Your task to perform on an android device: make emails show in primary in the gmail app Image 0: 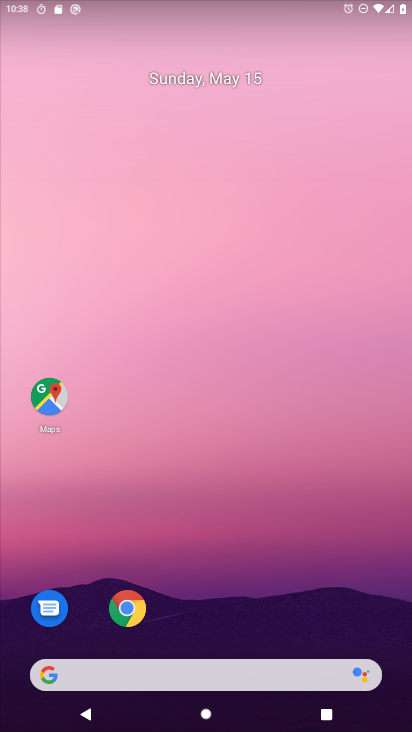
Step 0: drag from (361, 588) to (360, 183)
Your task to perform on an android device: make emails show in primary in the gmail app Image 1: 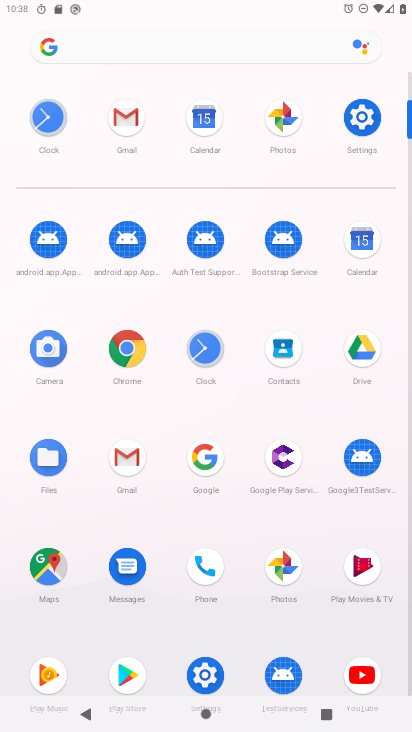
Step 1: click (121, 471)
Your task to perform on an android device: make emails show in primary in the gmail app Image 2: 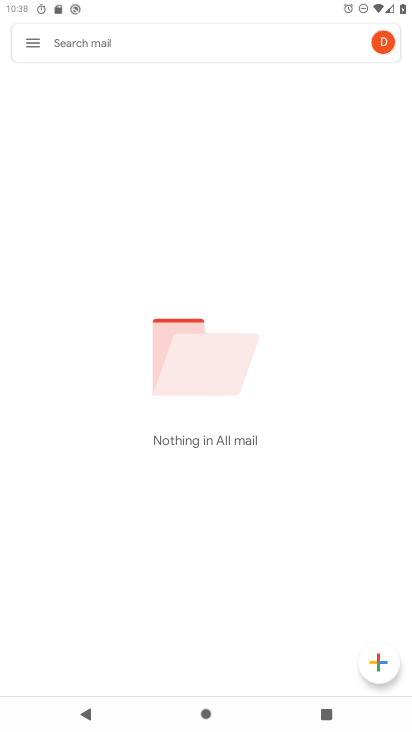
Step 2: click (20, 47)
Your task to perform on an android device: make emails show in primary in the gmail app Image 3: 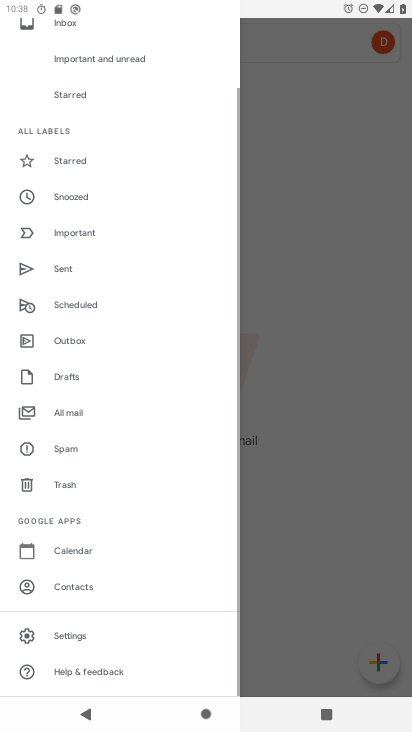
Step 3: drag from (176, 126) to (133, 620)
Your task to perform on an android device: make emails show in primary in the gmail app Image 4: 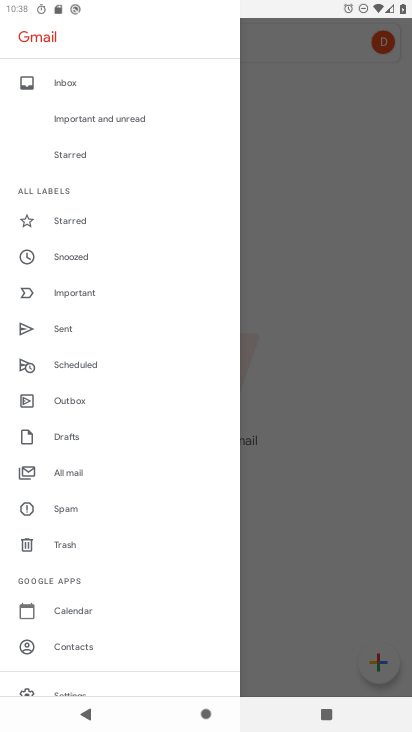
Step 4: drag from (88, 663) to (134, 325)
Your task to perform on an android device: make emails show in primary in the gmail app Image 5: 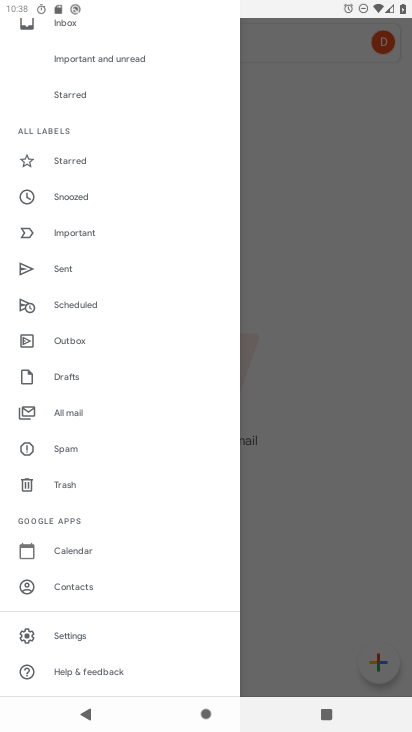
Step 5: click (71, 631)
Your task to perform on an android device: make emails show in primary in the gmail app Image 6: 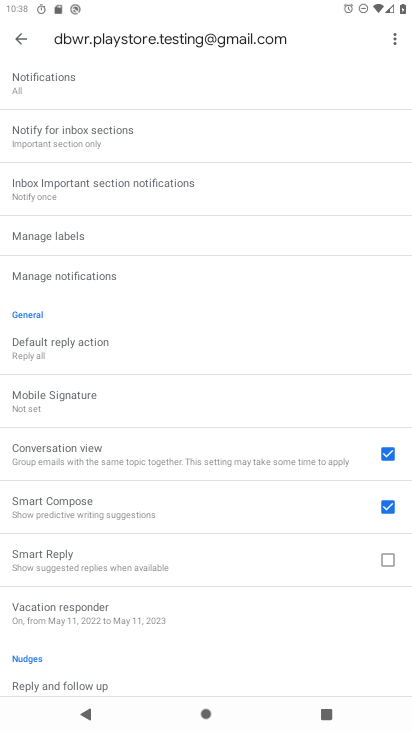
Step 6: drag from (149, 123) to (166, 591)
Your task to perform on an android device: make emails show in primary in the gmail app Image 7: 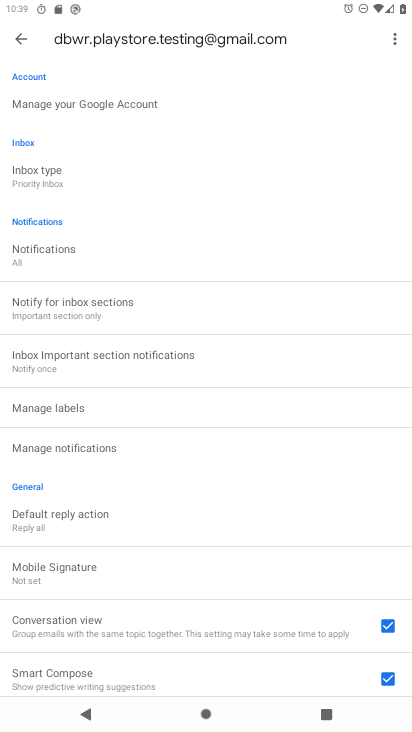
Step 7: click (116, 182)
Your task to perform on an android device: make emails show in primary in the gmail app Image 8: 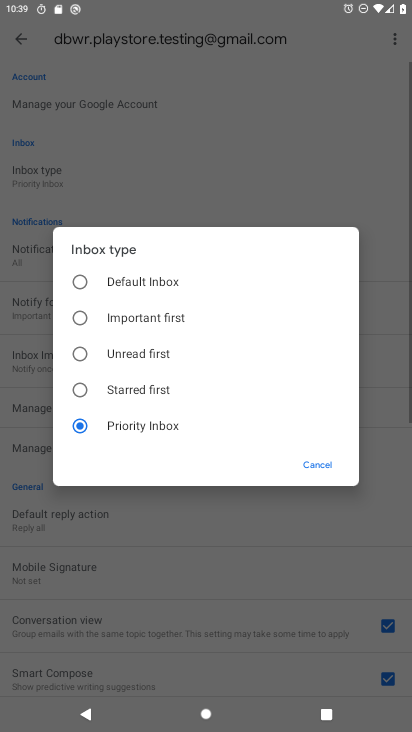
Step 8: click (144, 276)
Your task to perform on an android device: make emails show in primary in the gmail app Image 9: 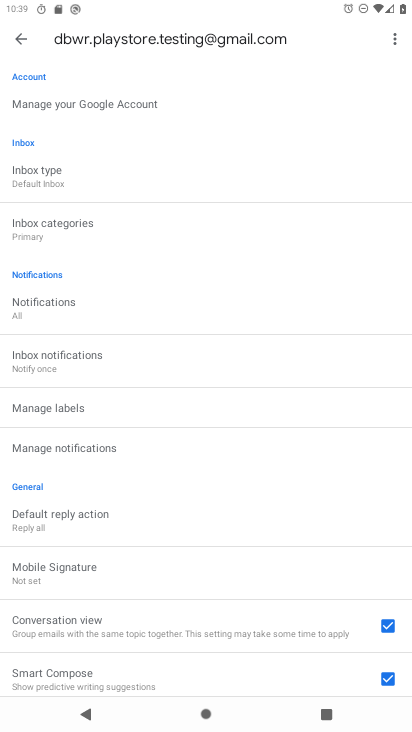
Step 9: click (22, 42)
Your task to perform on an android device: make emails show in primary in the gmail app Image 10: 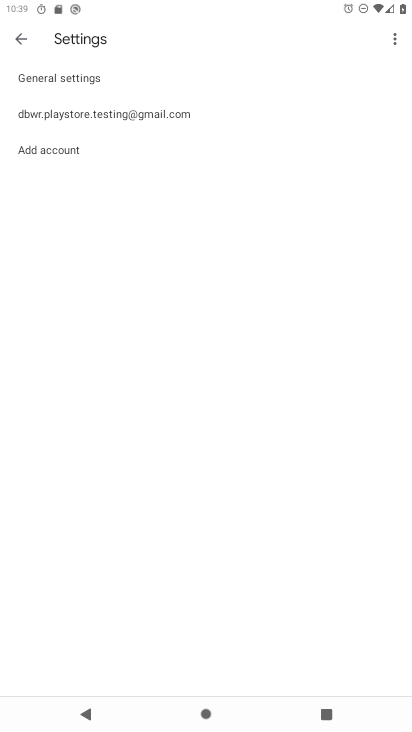
Step 10: click (23, 41)
Your task to perform on an android device: make emails show in primary in the gmail app Image 11: 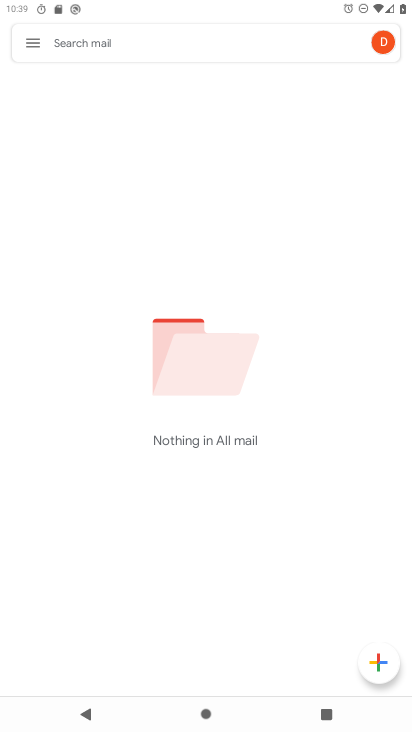
Step 11: click (26, 41)
Your task to perform on an android device: make emails show in primary in the gmail app Image 12: 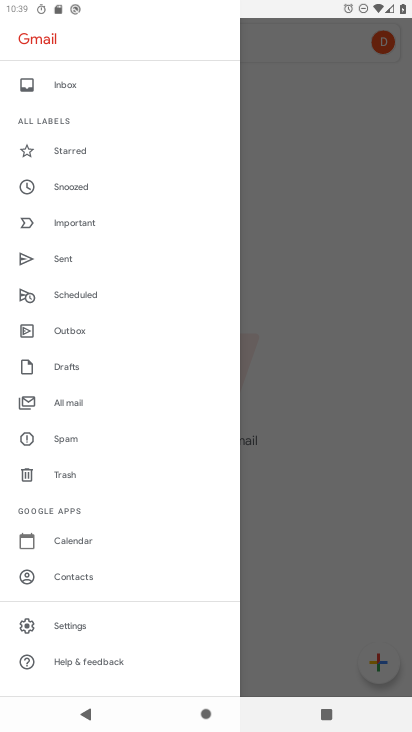
Step 12: task complete